Your task to perform on an android device: Clear the cart on target. Add amazon basics triple a to the cart on target Image 0: 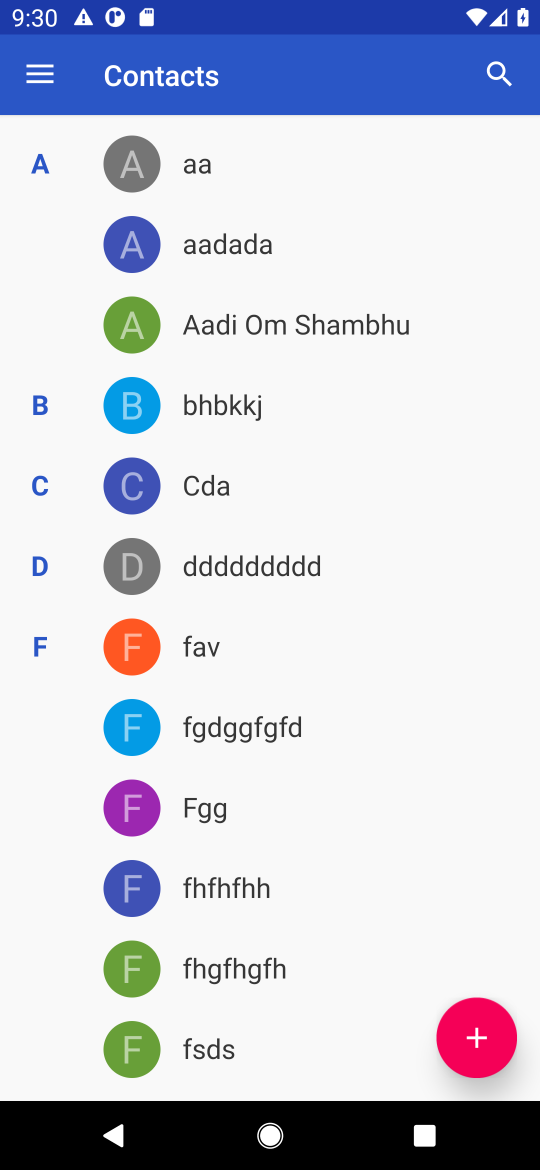
Step 0: press home button
Your task to perform on an android device: Clear the cart on target. Add amazon basics triple a to the cart on target Image 1: 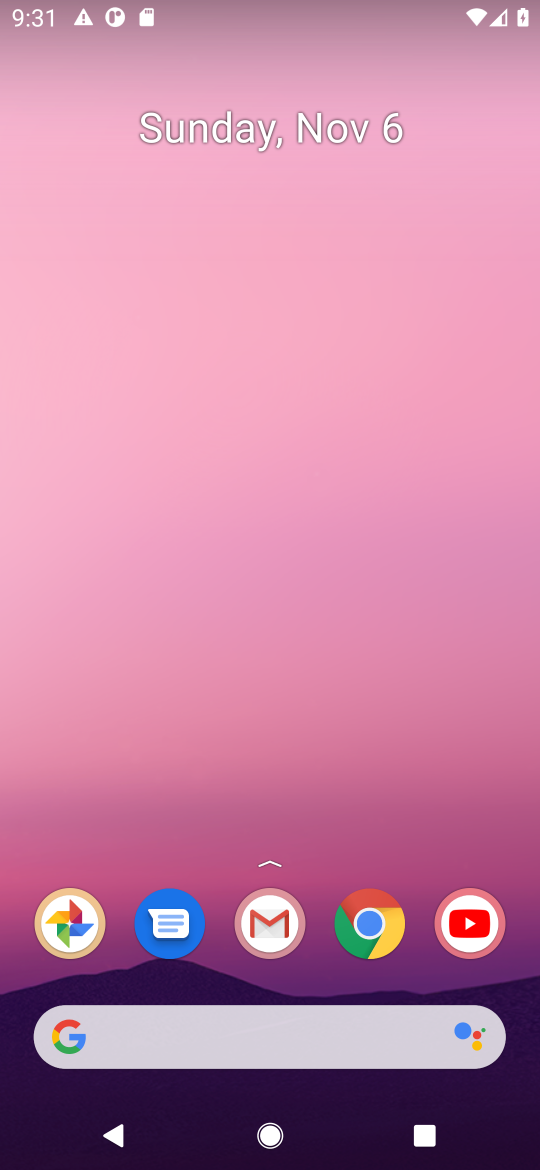
Step 1: click (373, 931)
Your task to perform on an android device: Clear the cart on target. Add amazon basics triple a to the cart on target Image 2: 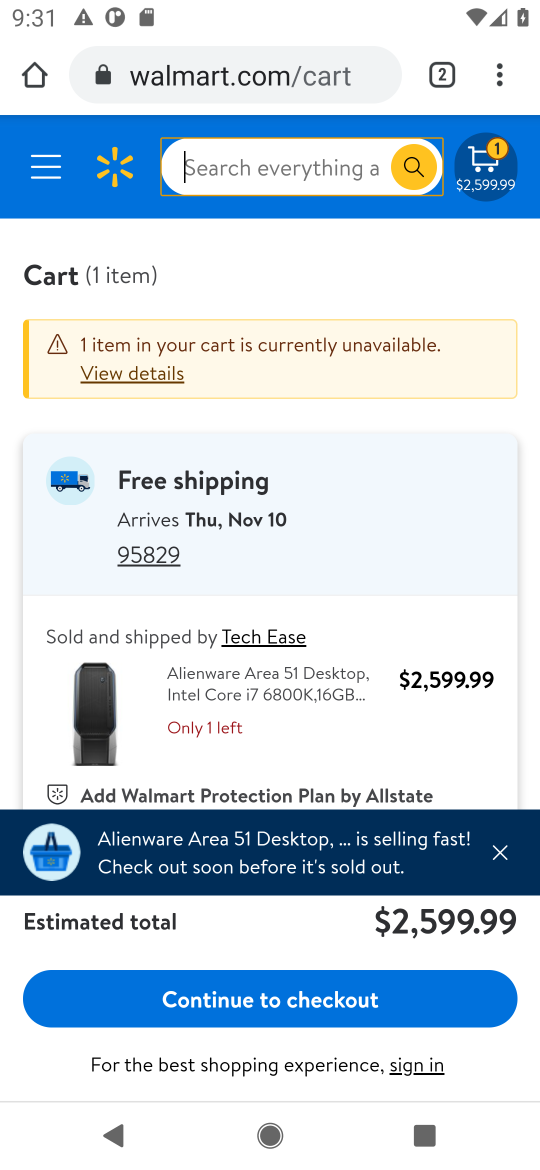
Step 2: click (247, 88)
Your task to perform on an android device: Clear the cart on target. Add amazon basics triple a to the cart on target Image 3: 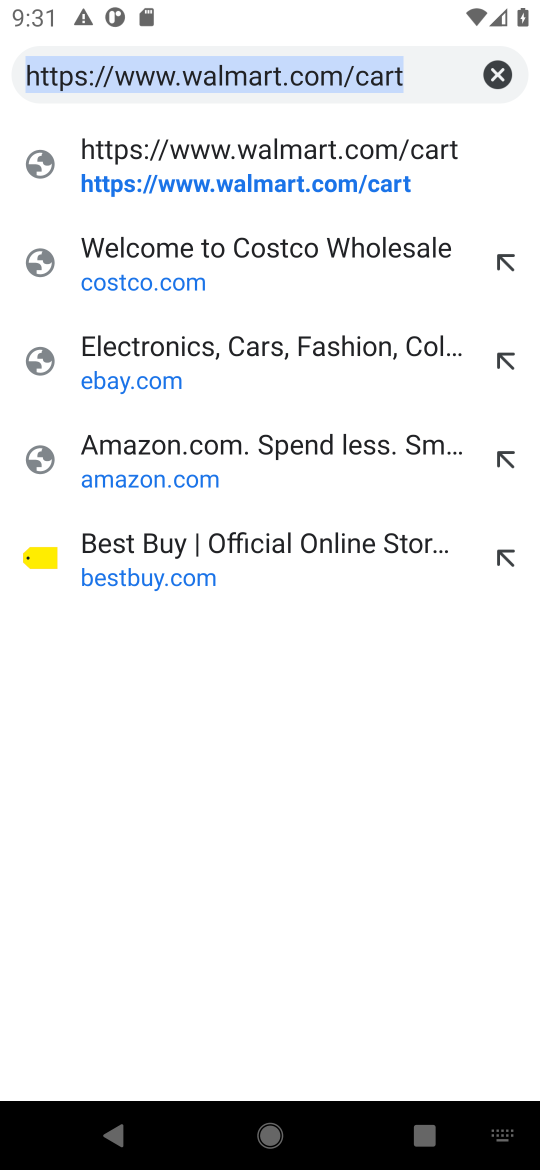
Step 3: type "target.com"
Your task to perform on an android device: Clear the cart on target. Add amazon basics triple a to the cart on target Image 4: 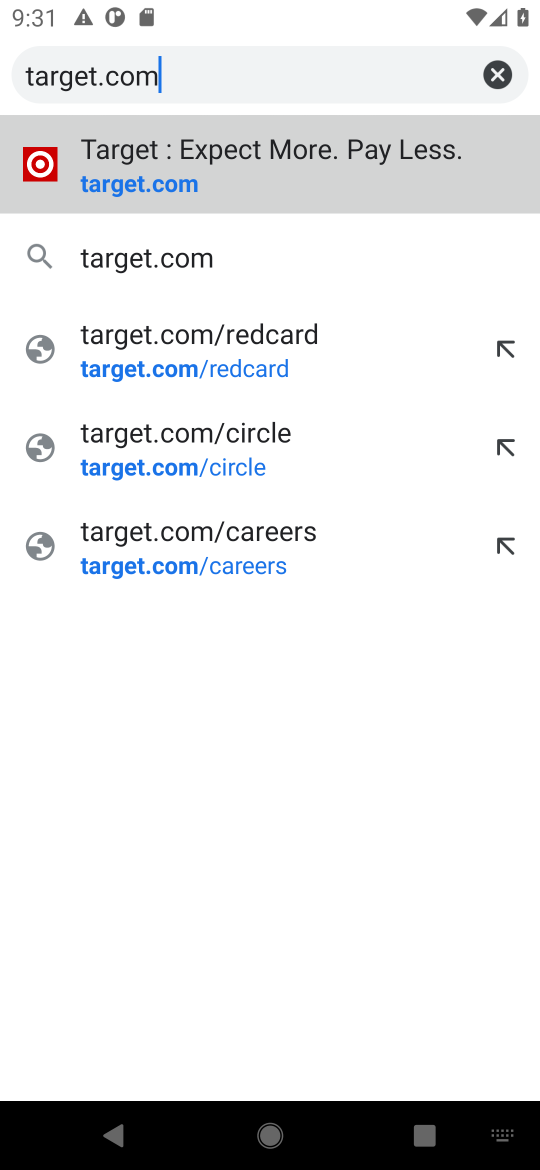
Step 4: click (175, 187)
Your task to perform on an android device: Clear the cart on target. Add amazon basics triple a to the cart on target Image 5: 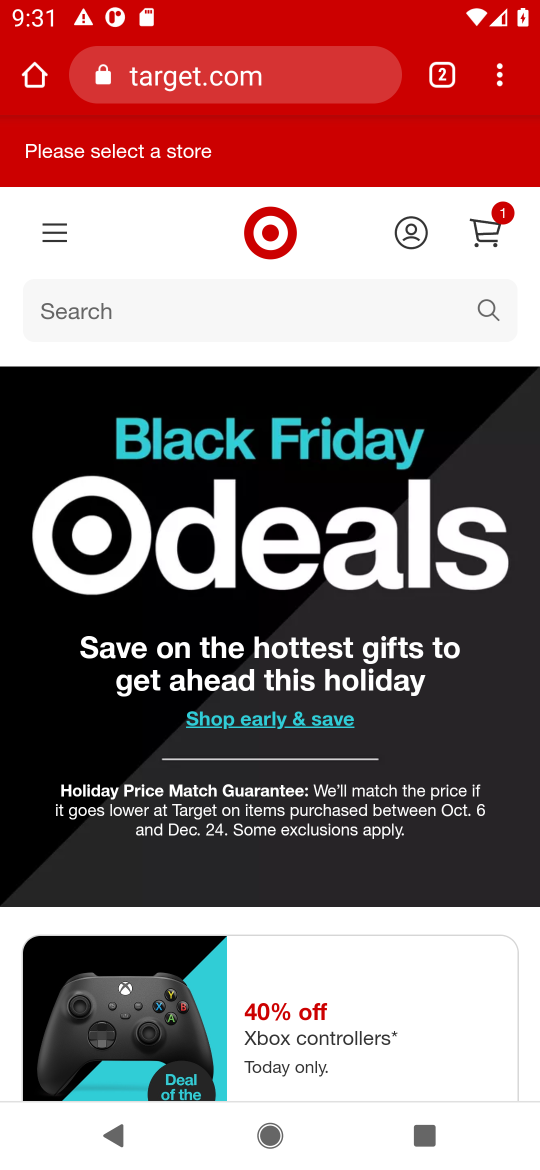
Step 5: click (487, 234)
Your task to perform on an android device: Clear the cart on target. Add amazon basics triple a to the cart on target Image 6: 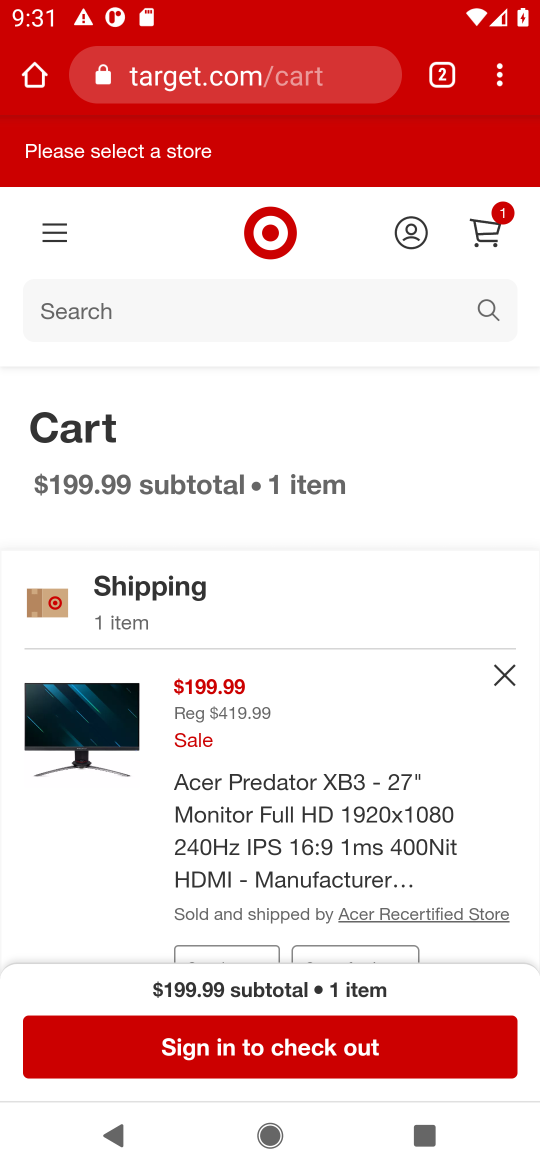
Step 6: click (496, 677)
Your task to perform on an android device: Clear the cart on target. Add amazon basics triple a to the cart on target Image 7: 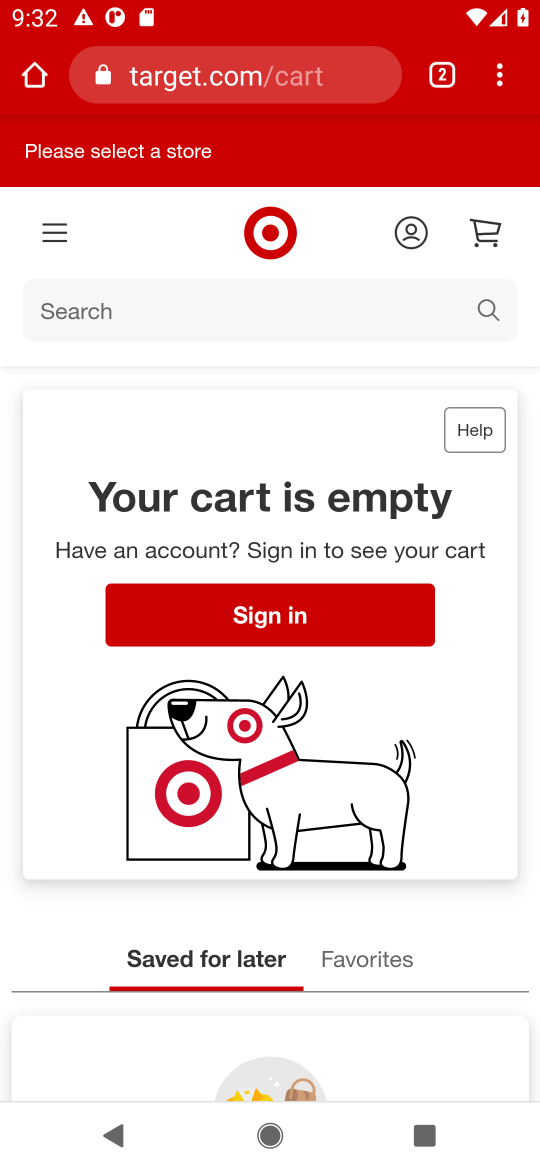
Step 7: click (493, 307)
Your task to perform on an android device: Clear the cart on target. Add amazon basics triple a to the cart on target Image 8: 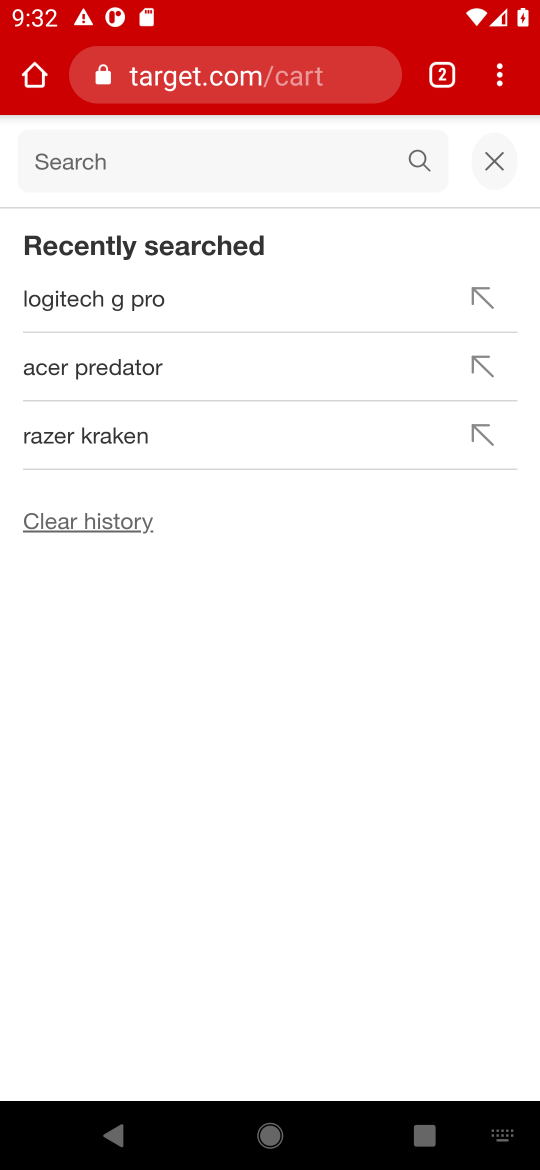
Step 8: type "amazon basics triple a "
Your task to perform on an android device: Clear the cart on target. Add amazon basics triple a to the cart on target Image 9: 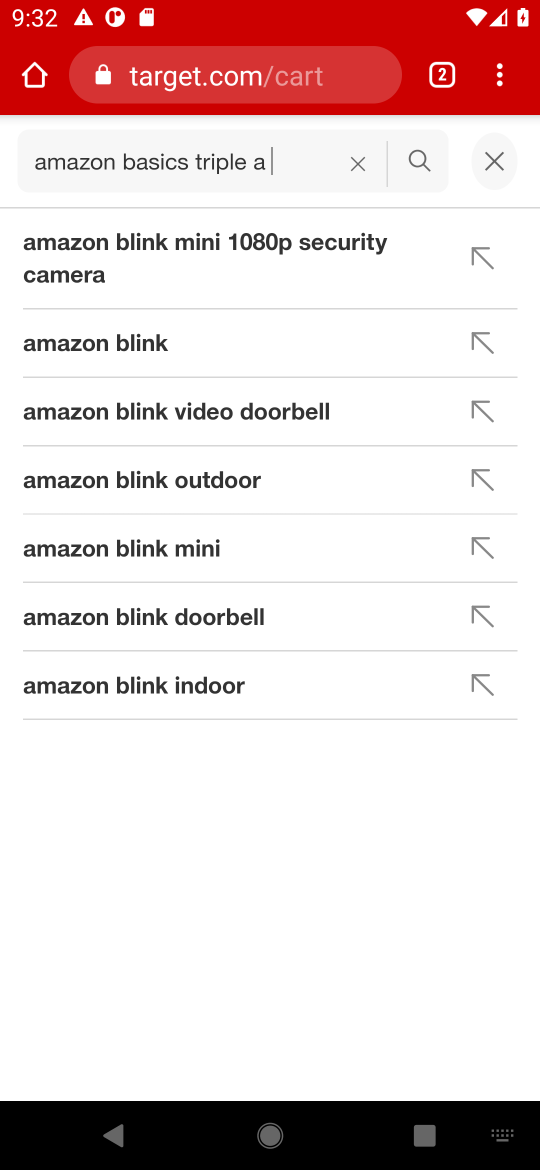
Step 9: click (419, 156)
Your task to perform on an android device: Clear the cart on target. Add amazon basics triple a to the cart on target Image 10: 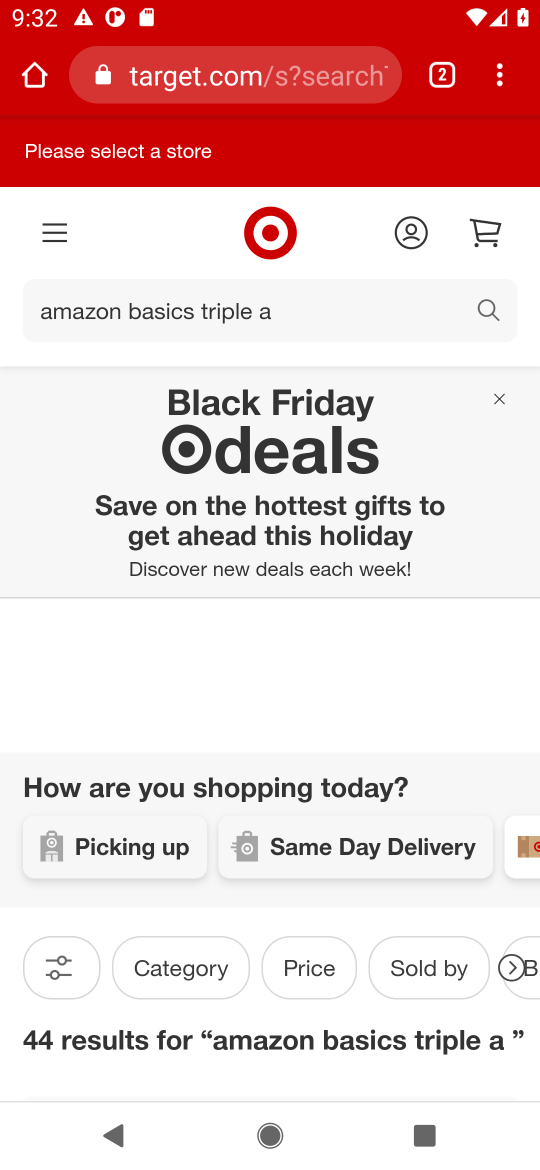
Step 10: task complete